Your task to perform on an android device: manage bookmarks in the chrome app Image 0: 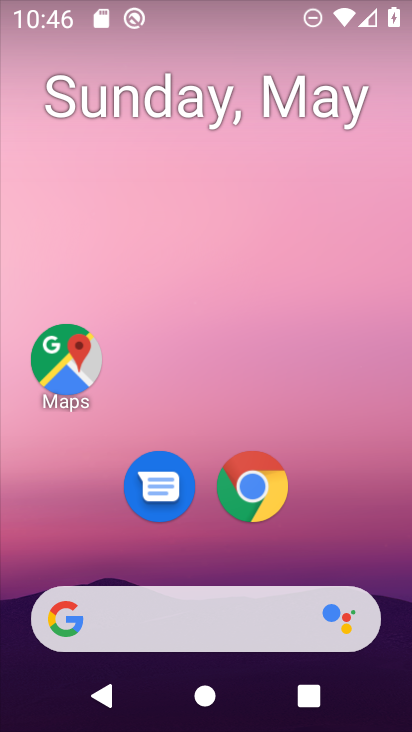
Step 0: click (250, 473)
Your task to perform on an android device: manage bookmarks in the chrome app Image 1: 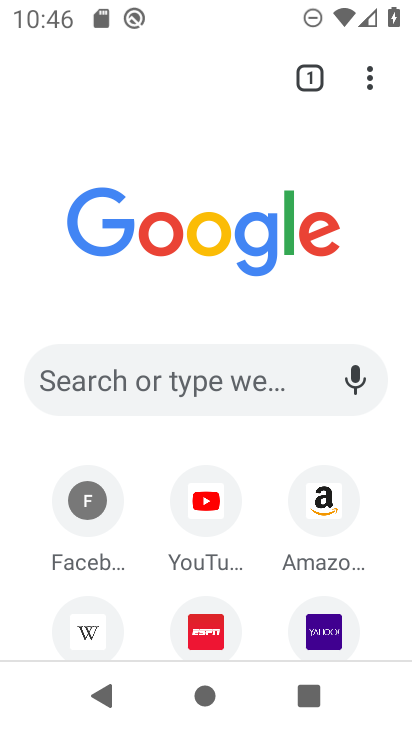
Step 1: click (372, 79)
Your task to perform on an android device: manage bookmarks in the chrome app Image 2: 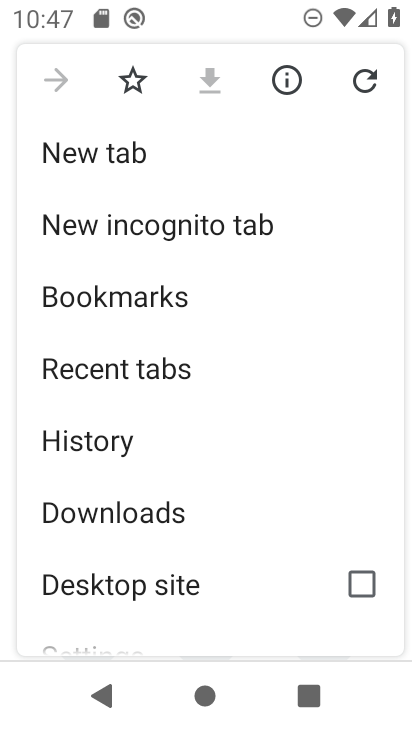
Step 2: drag from (250, 615) to (261, 157)
Your task to perform on an android device: manage bookmarks in the chrome app Image 3: 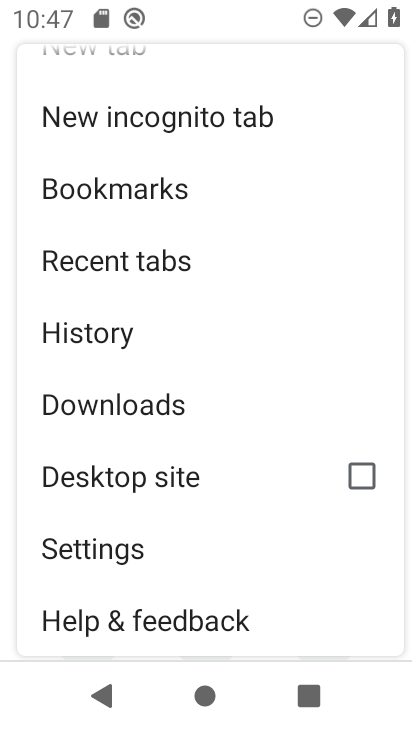
Step 3: click (176, 207)
Your task to perform on an android device: manage bookmarks in the chrome app Image 4: 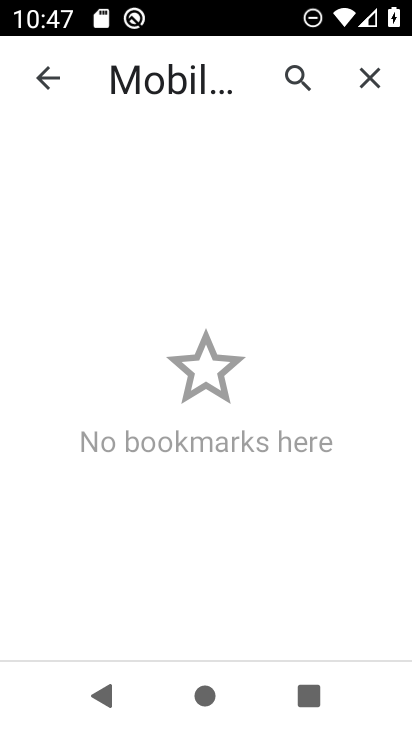
Step 4: task complete